Your task to perform on an android device: change the clock display to show seconds Image 0: 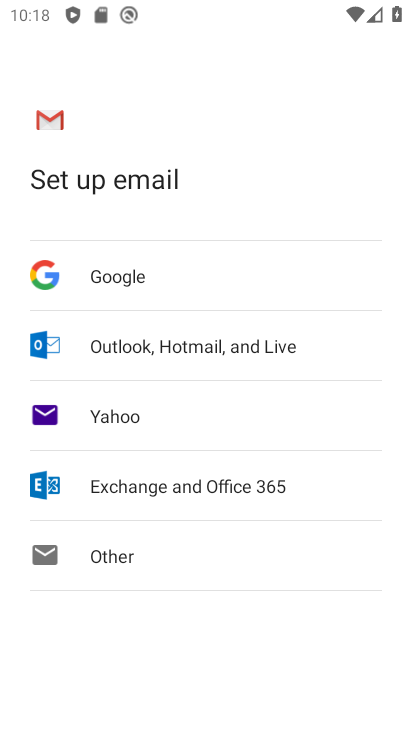
Step 0: press home button
Your task to perform on an android device: change the clock display to show seconds Image 1: 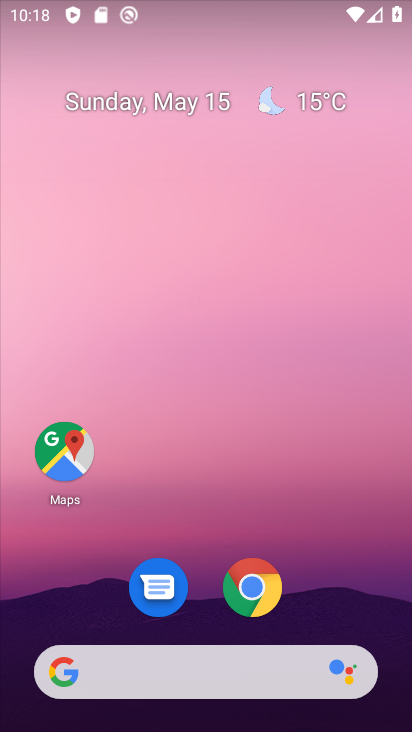
Step 1: drag from (87, 648) to (209, 155)
Your task to perform on an android device: change the clock display to show seconds Image 2: 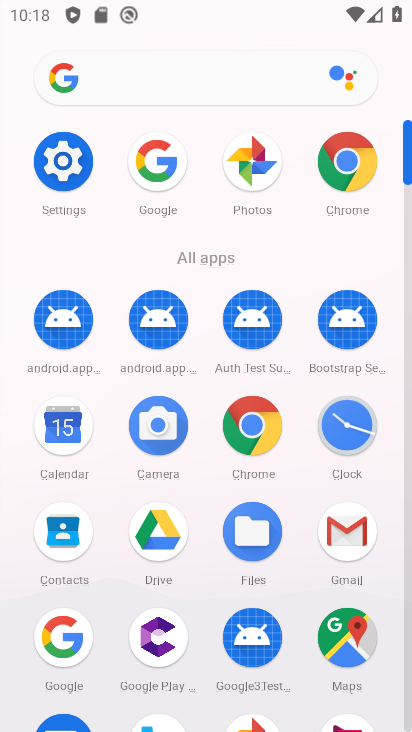
Step 2: click (352, 416)
Your task to perform on an android device: change the clock display to show seconds Image 3: 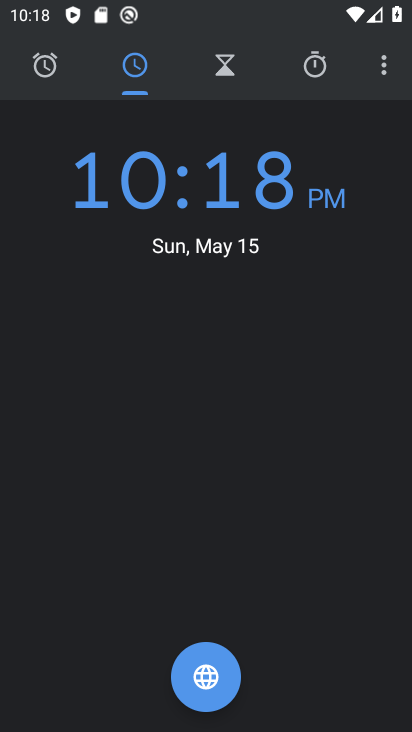
Step 3: click (392, 76)
Your task to perform on an android device: change the clock display to show seconds Image 4: 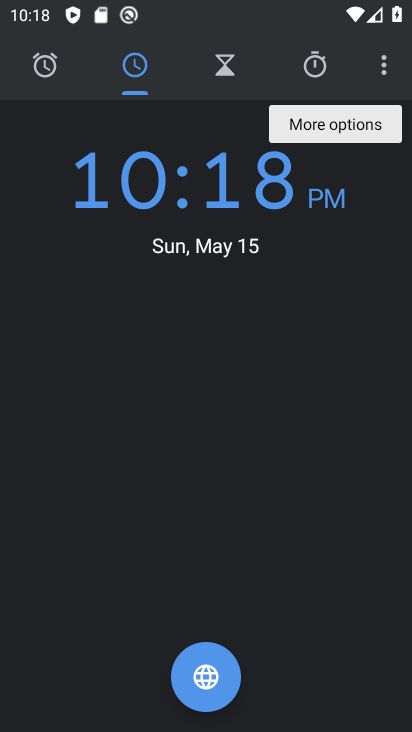
Step 4: click (378, 64)
Your task to perform on an android device: change the clock display to show seconds Image 5: 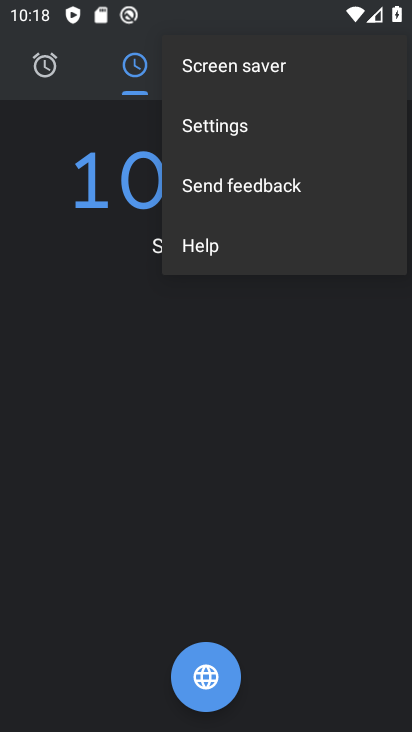
Step 5: click (345, 118)
Your task to perform on an android device: change the clock display to show seconds Image 6: 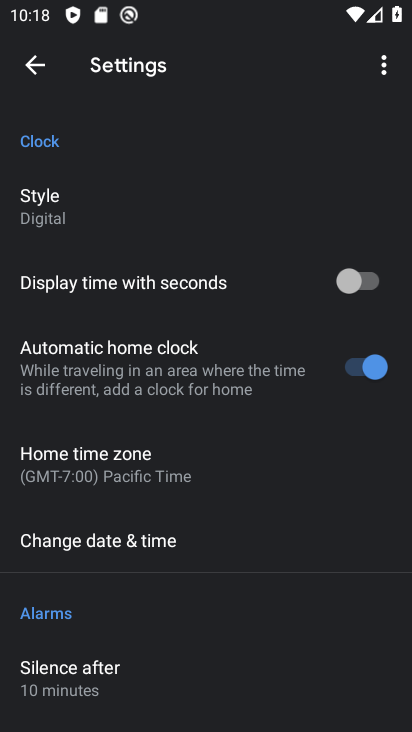
Step 6: click (389, 281)
Your task to perform on an android device: change the clock display to show seconds Image 7: 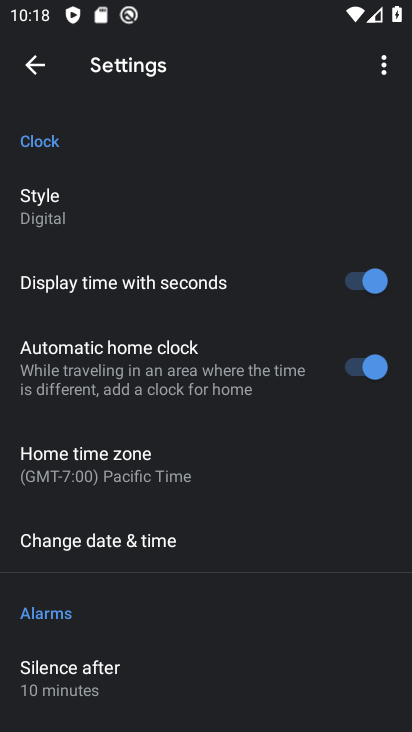
Step 7: task complete